Your task to perform on an android device: Open the stopwatch Image 0: 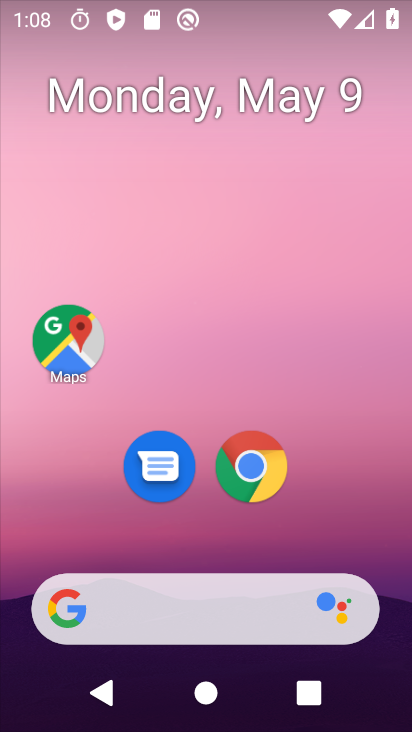
Step 0: drag from (198, 581) to (243, 375)
Your task to perform on an android device: Open the stopwatch Image 1: 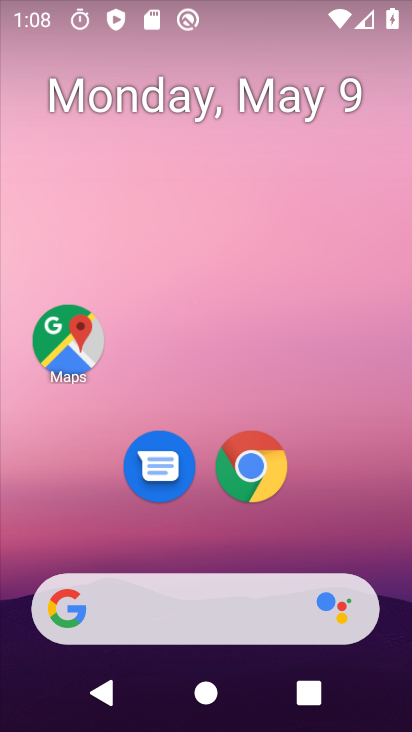
Step 1: drag from (255, 548) to (292, 197)
Your task to perform on an android device: Open the stopwatch Image 2: 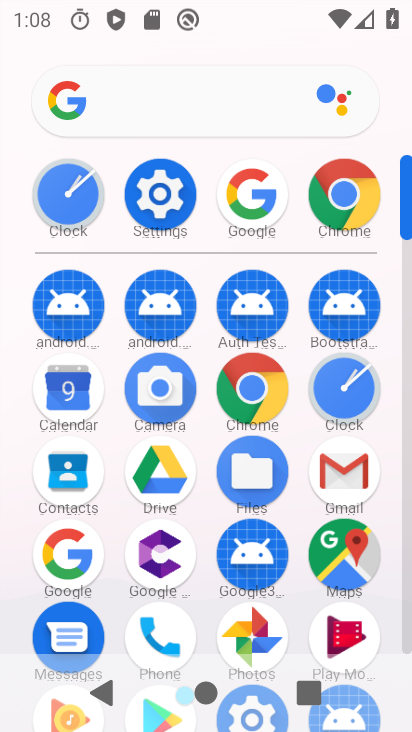
Step 2: drag from (300, 467) to (313, 255)
Your task to perform on an android device: Open the stopwatch Image 3: 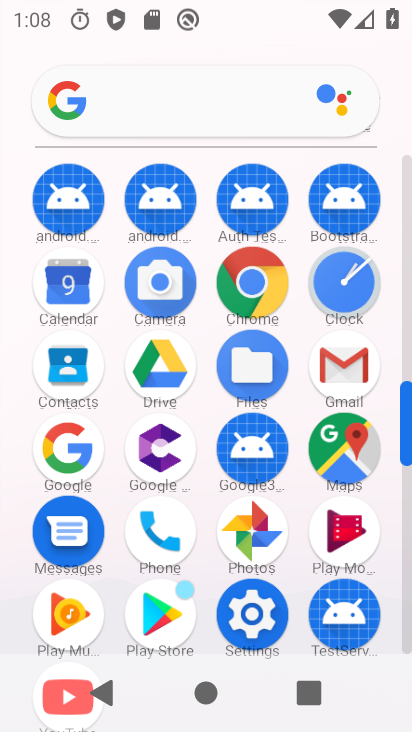
Step 3: click (343, 305)
Your task to perform on an android device: Open the stopwatch Image 4: 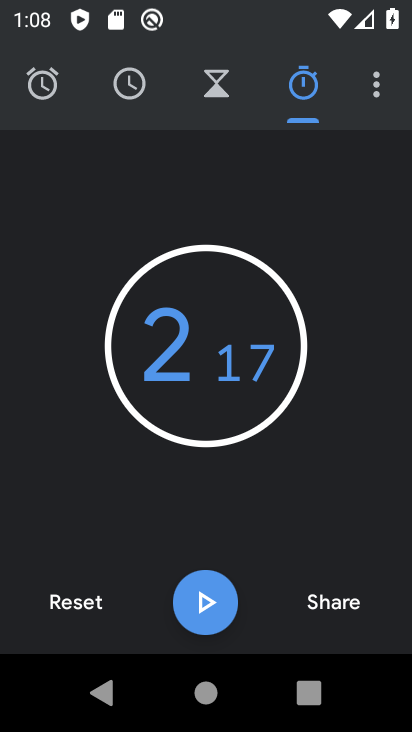
Step 4: task complete